Your task to perform on an android device: open chrome and create a bookmark for the current page Image 0: 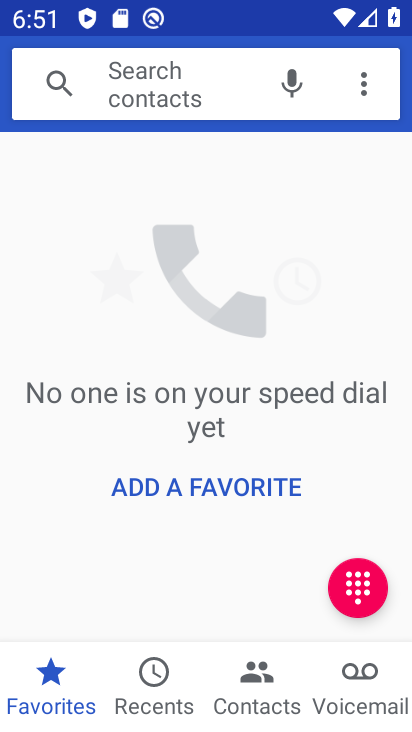
Step 0: press home button
Your task to perform on an android device: open chrome and create a bookmark for the current page Image 1: 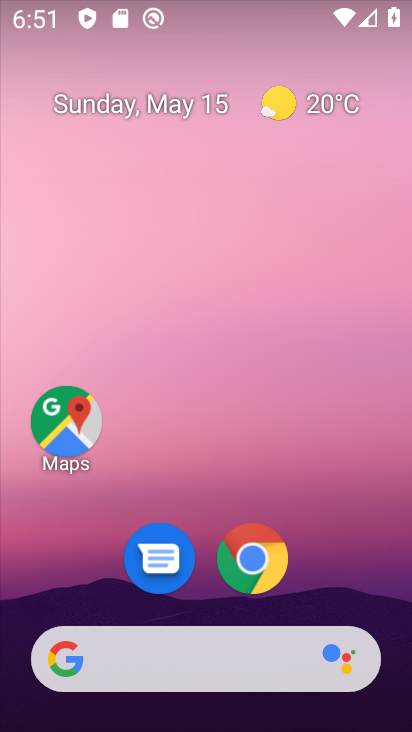
Step 1: click (253, 571)
Your task to perform on an android device: open chrome and create a bookmark for the current page Image 2: 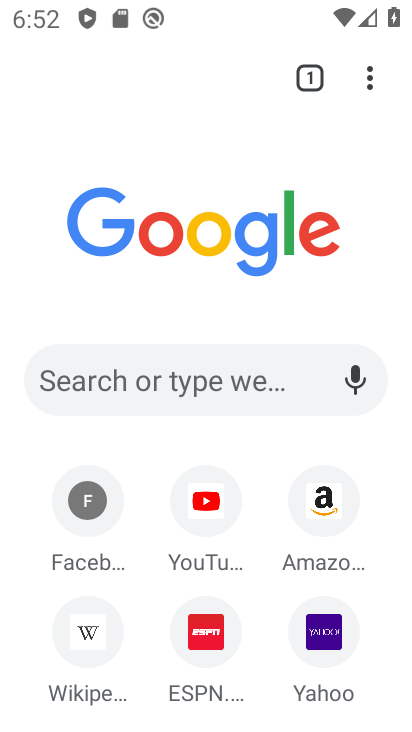
Step 2: click (367, 80)
Your task to perform on an android device: open chrome and create a bookmark for the current page Image 3: 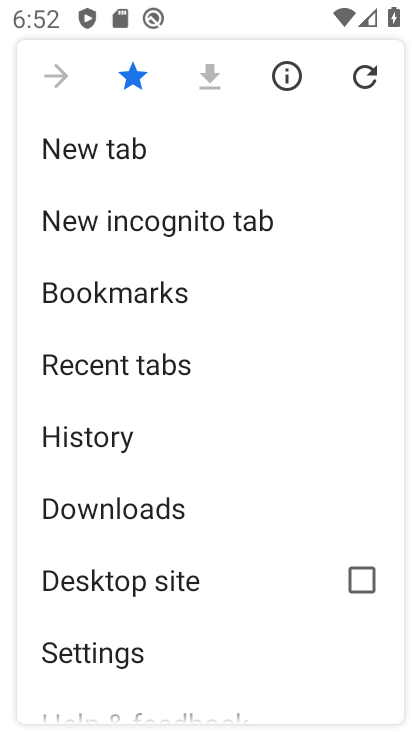
Step 3: task complete